Your task to perform on an android device: turn pop-ups on in chrome Image 0: 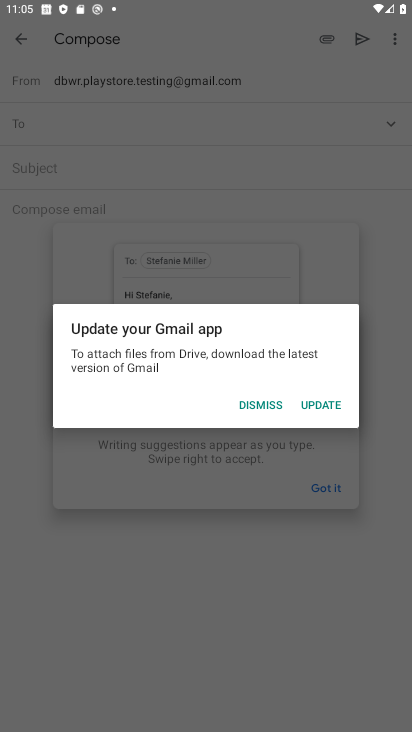
Step 0: press home button
Your task to perform on an android device: turn pop-ups on in chrome Image 1: 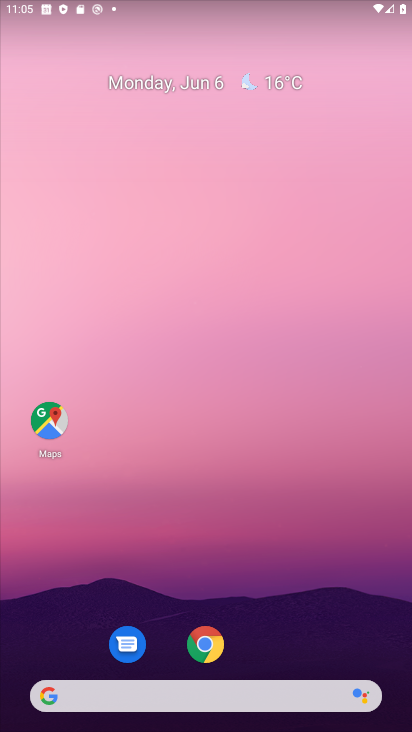
Step 1: click (209, 647)
Your task to perform on an android device: turn pop-ups on in chrome Image 2: 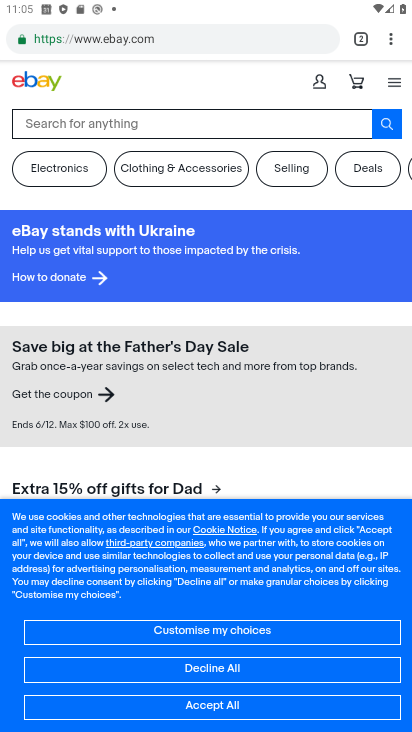
Step 2: click (390, 44)
Your task to perform on an android device: turn pop-ups on in chrome Image 3: 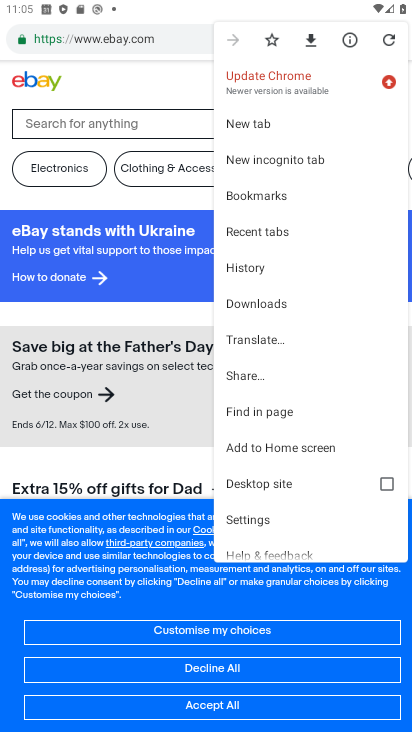
Step 3: click (288, 518)
Your task to perform on an android device: turn pop-ups on in chrome Image 4: 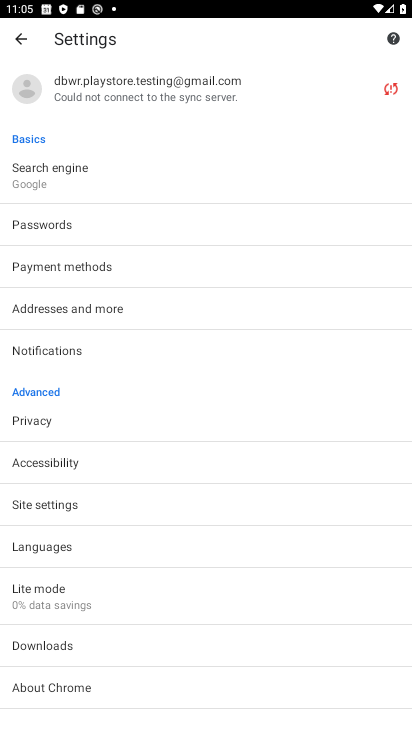
Step 4: click (128, 509)
Your task to perform on an android device: turn pop-ups on in chrome Image 5: 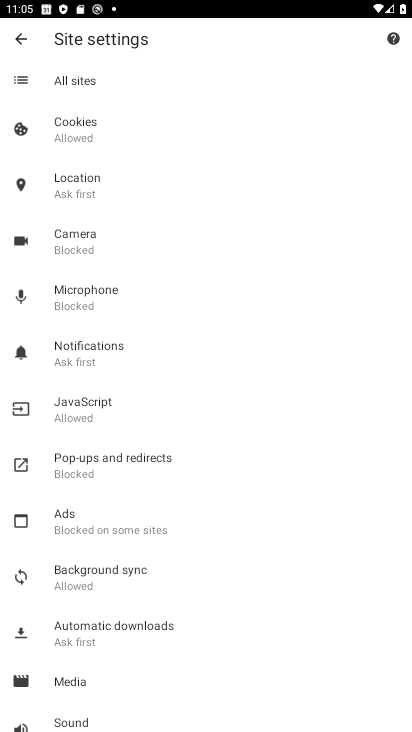
Step 5: click (146, 476)
Your task to perform on an android device: turn pop-ups on in chrome Image 6: 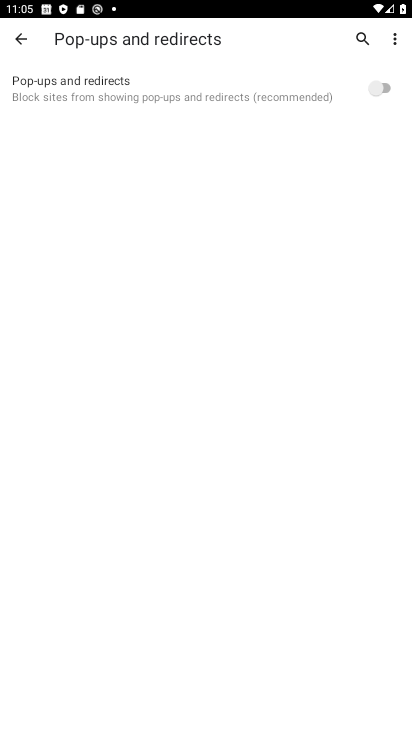
Step 6: click (385, 103)
Your task to perform on an android device: turn pop-ups on in chrome Image 7: 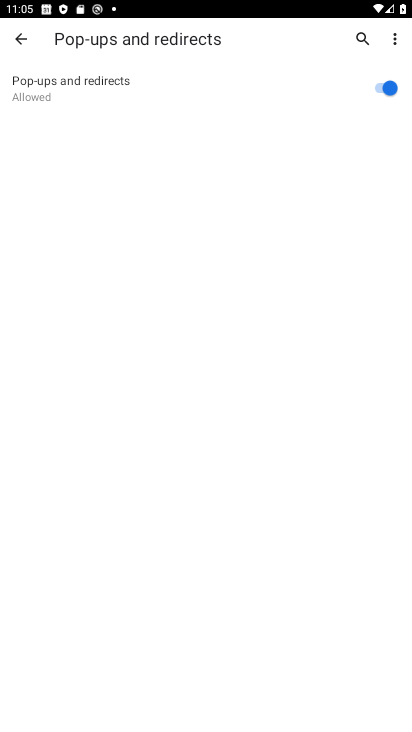
Step 7: task complete